Your task to perform on an android device: turn on notifications settings in the gmail app Image 0: 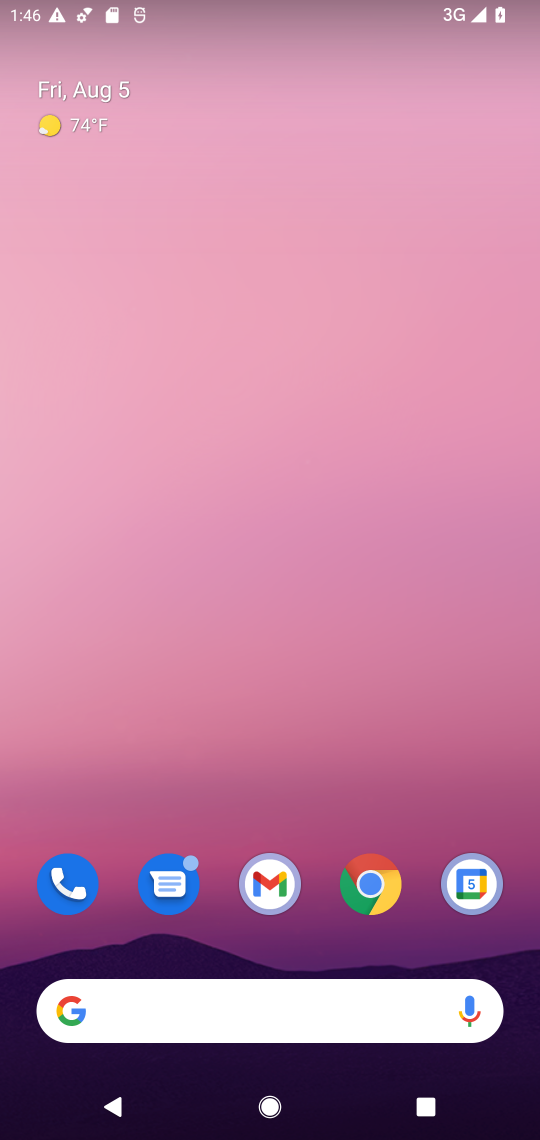
Step 0: drag from (433, 847) to (293, 0)
Your task to perform on an android device: turn on notifications settings in the gmail app Image 1: 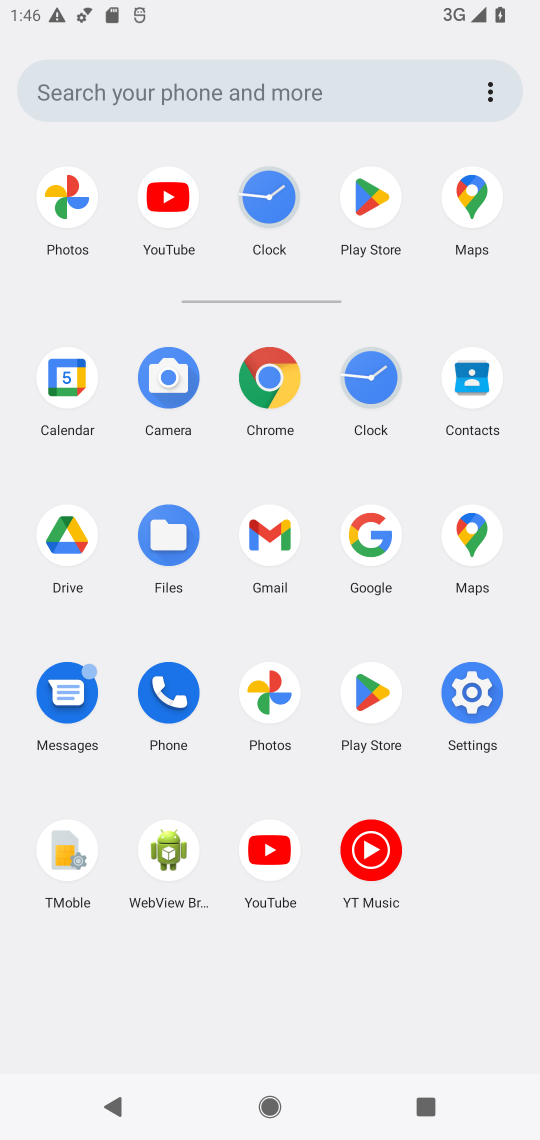
Step 1: click (264, 536)
Your task to perform on an android device: turn on notifications settings in the gmail app Image 2: 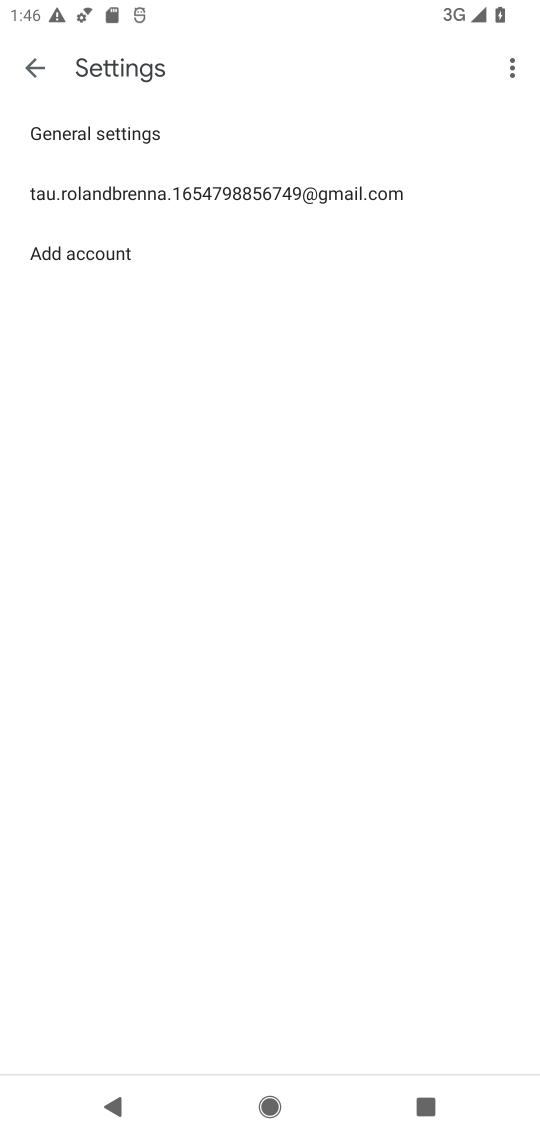
Step 2: click (93, 196)
Your task to perform on an android device: turn on notifications settings in the gmail app Image 3: 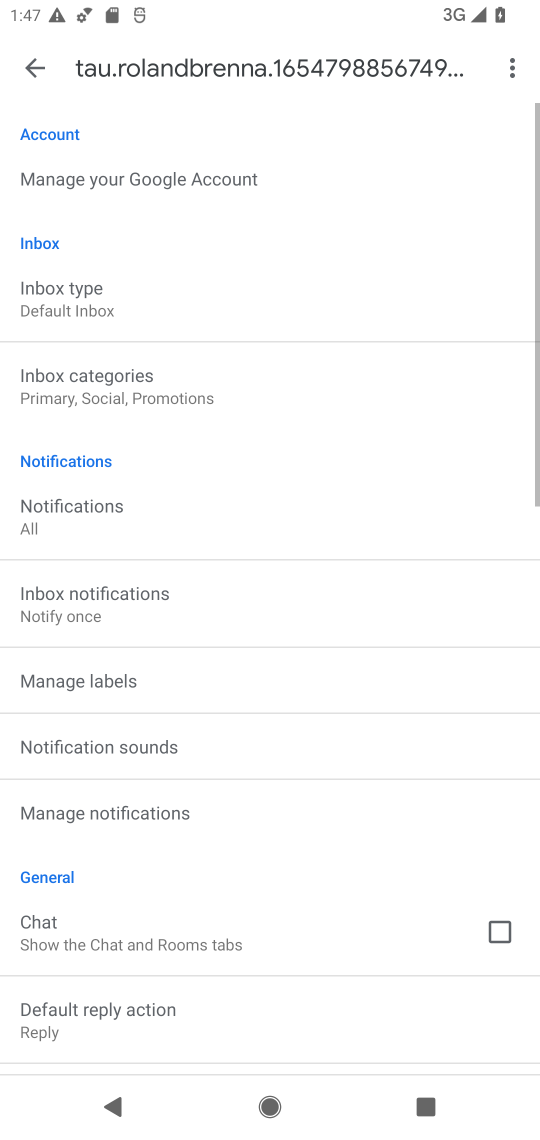
Step 3: click (96, 520)
Your task to perform on an android device: turn on notifications settings in the gmail app Image 4: 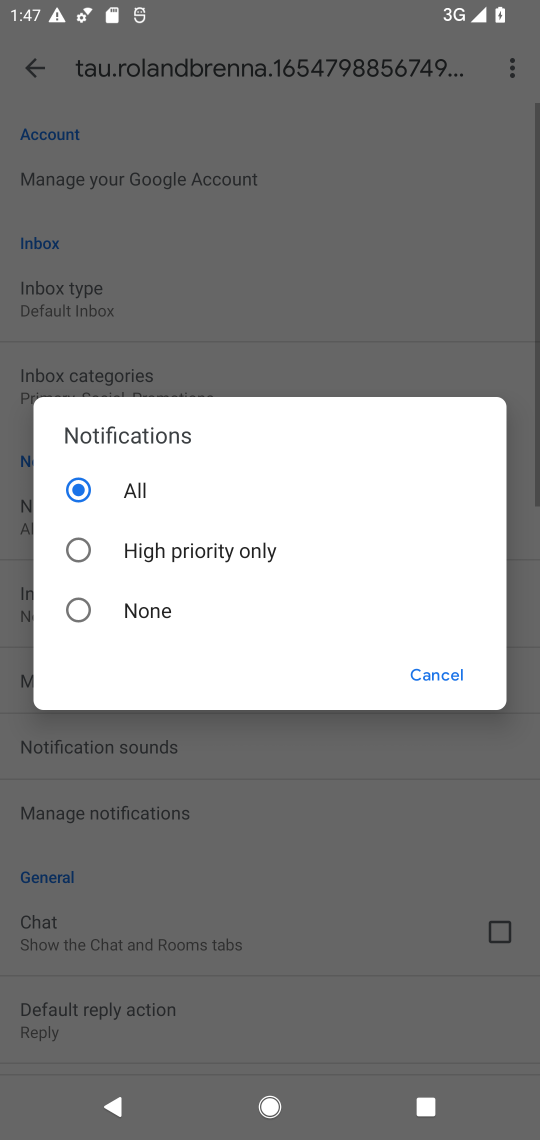
Step 4: click (90, 491)
Your task to perform on an android device: turn on notifications settings in the gmail app Image 5: 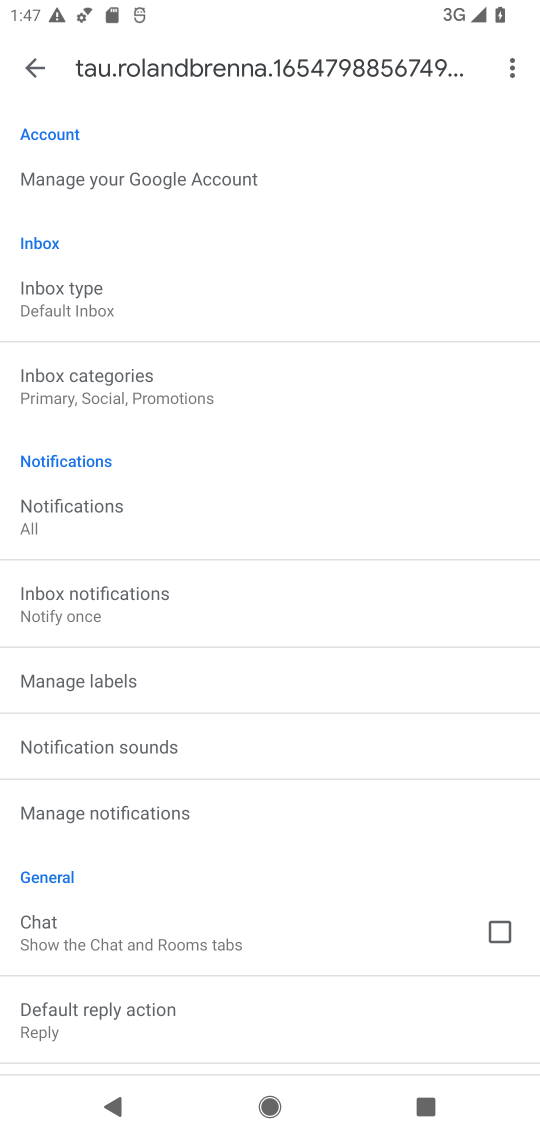
Step 5: task complete